Your task to perform on an android device: Open the calendar and show me this week's events? Image 0: 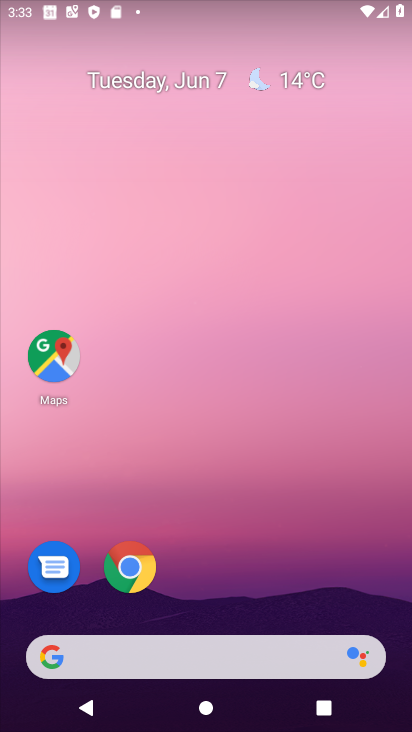
Step 0: drag from (205, 594) to (233, 256)
Your task to perform on an android device: Open the calendar and show me this week's events? Image 1: 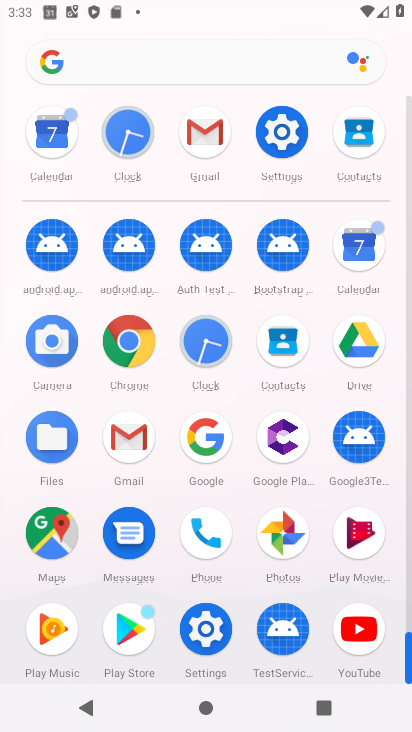
Step 1: click (372, 253)
Your task to perform on an android device: Open the calendar and show me this week's events? Image 2: 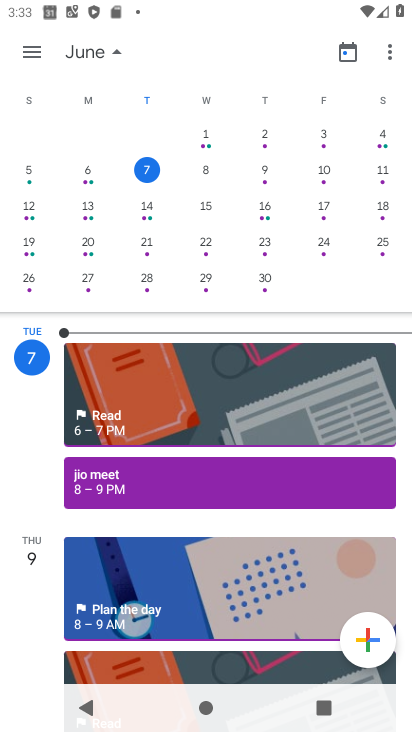
Step 2: task complete